Your task to perform on an android device: Go to internet settings Image 0: 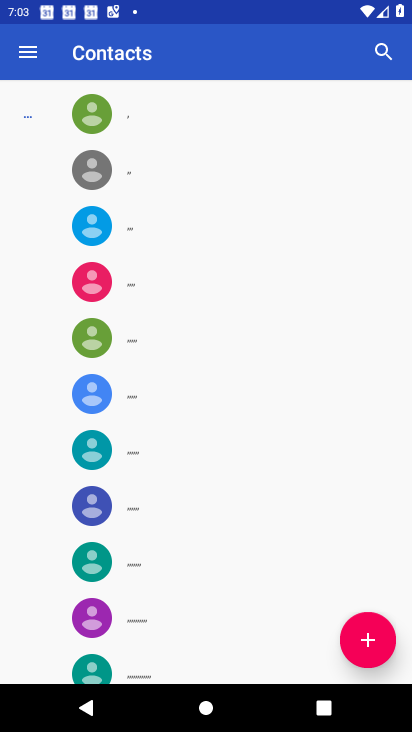
Step 0: press home button
Your task to perform on an android device: Go to internet settings Image 1: 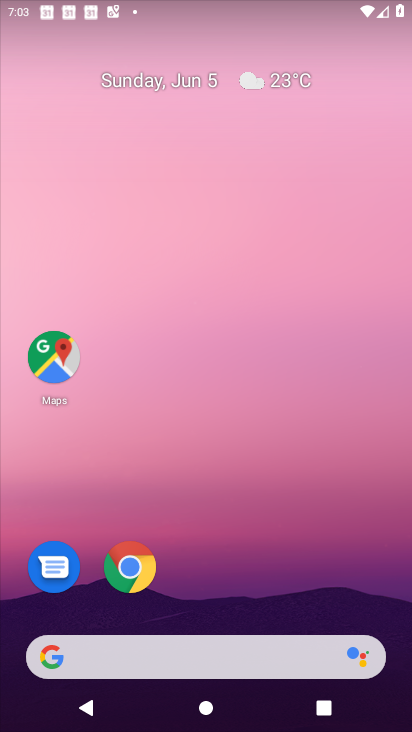
Step 1: drag from (399, 642) to (289, 10)
Your task to perform on an android device: Go to internet settings Image 2: 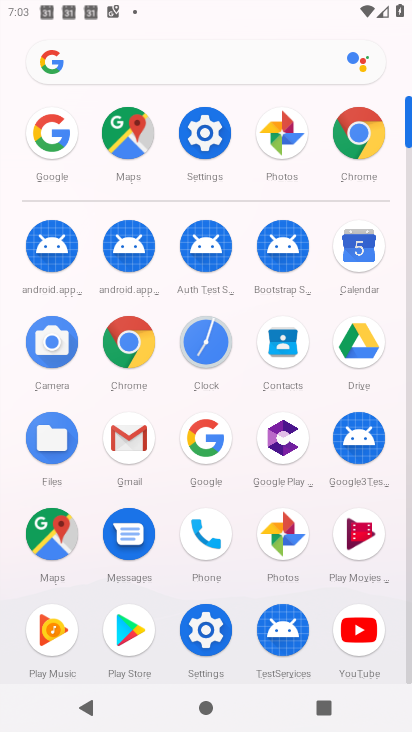
Step 2: click (196, 135)
Your task to perform on an android device: Go to internet settings Image 3: 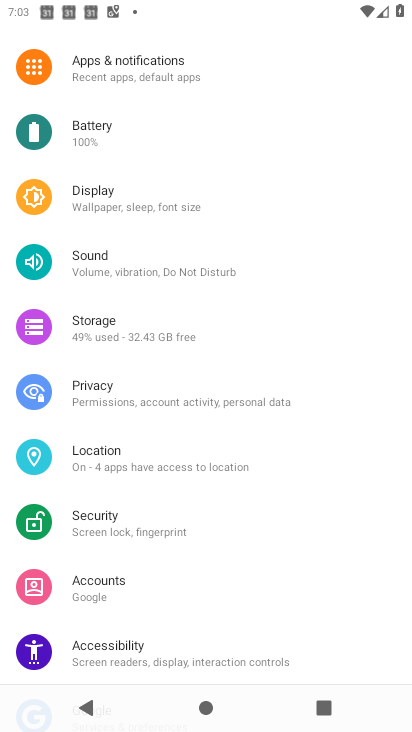
Step 3: drag from (196, 135) to (196, 618)
Your task to perform on an android device: Go to internet settings Image 4: 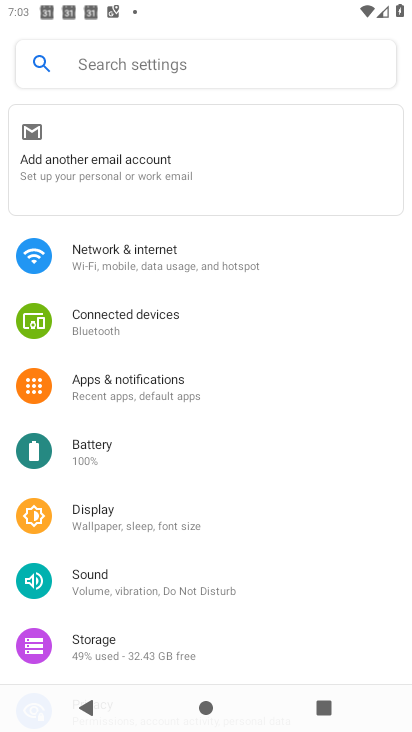
Step 4: click (178, 266)
Your task to perform on an android device: Go to internet settings Image 5: 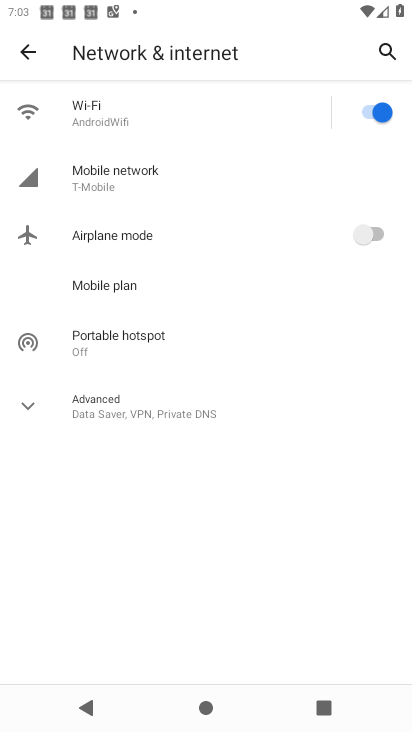
Step 5: task complete